Your task to perform on an android device: change the clock display to analog Image 0: 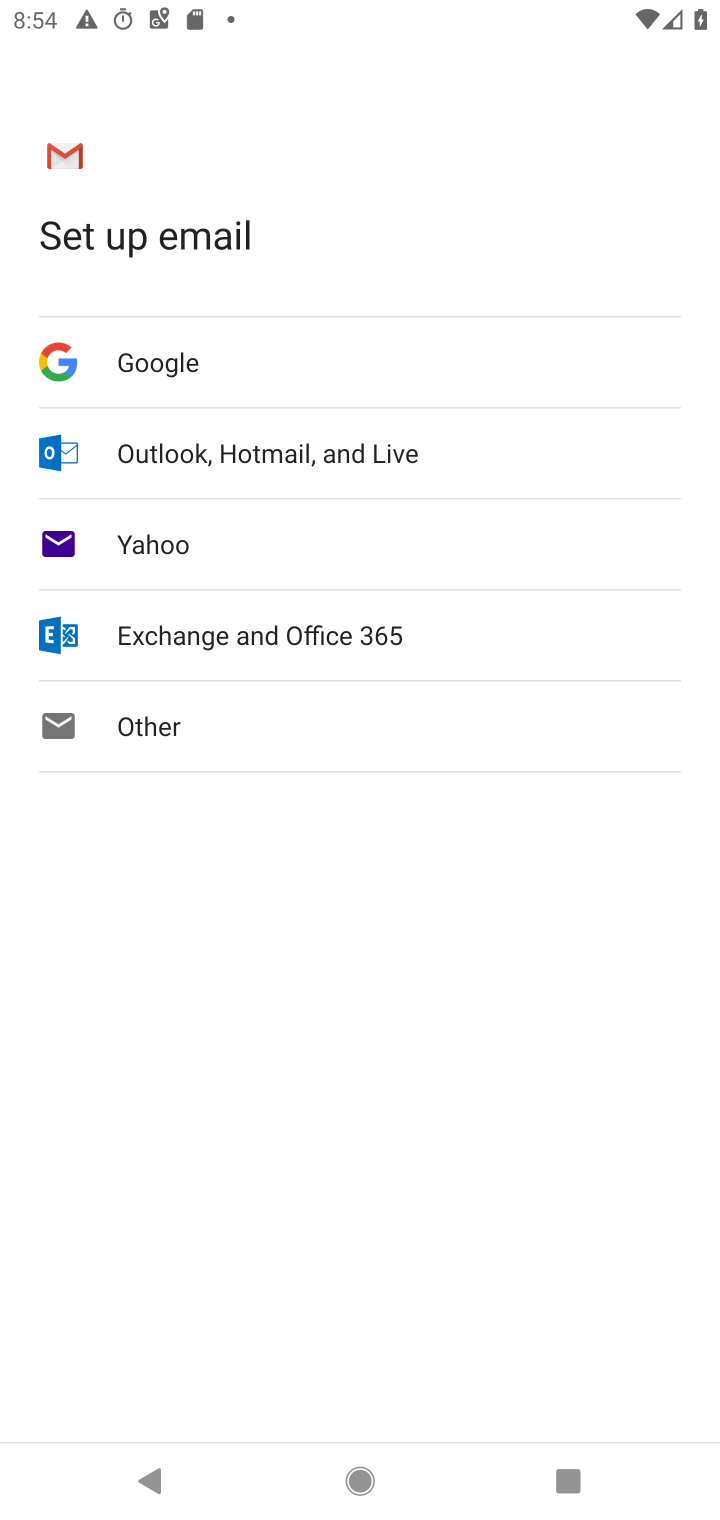
Step 0: press home button
Your task to perform on an android device: change the clock display to analog Image 1: 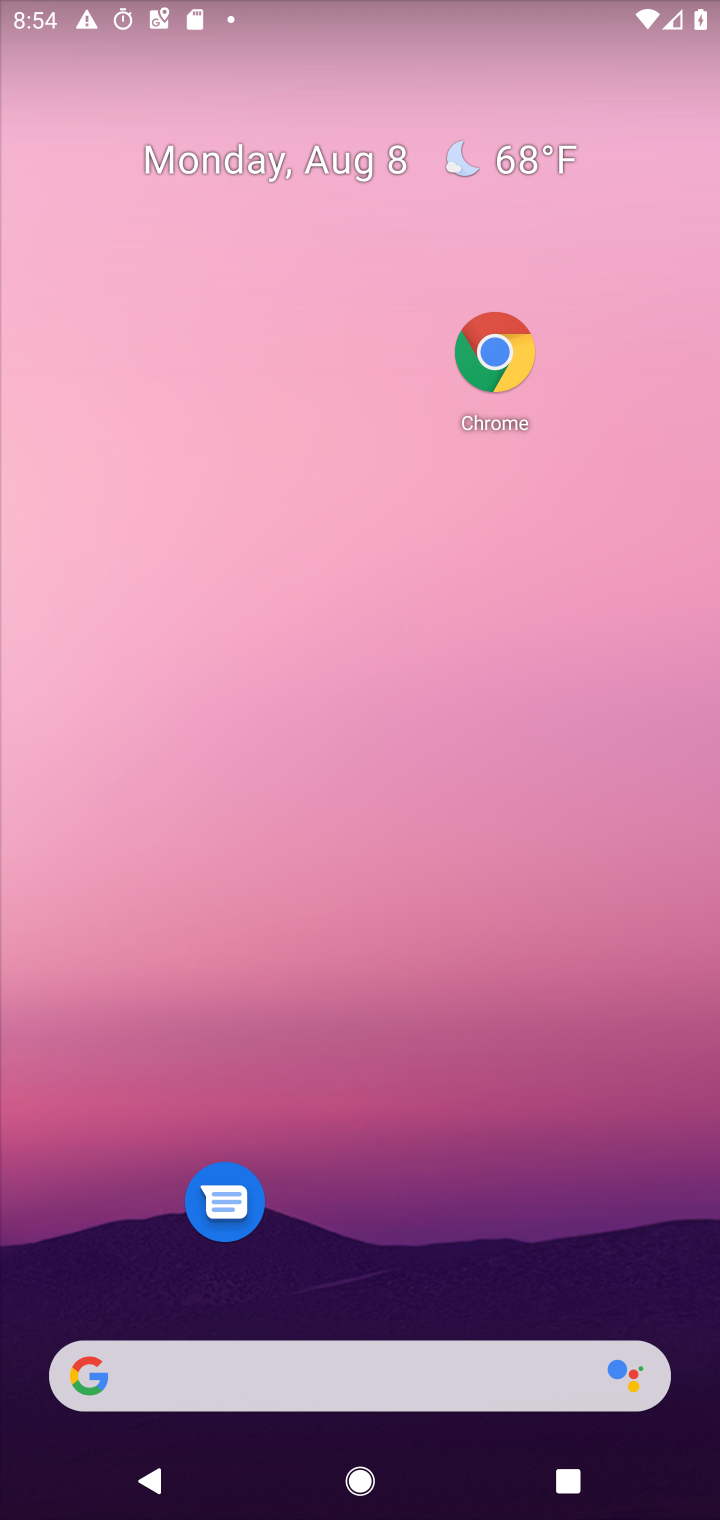
Step 1: drag from (415, 1204) to (499, 294)
Your task to perform on an android device: change the clock display to analog Image 2: 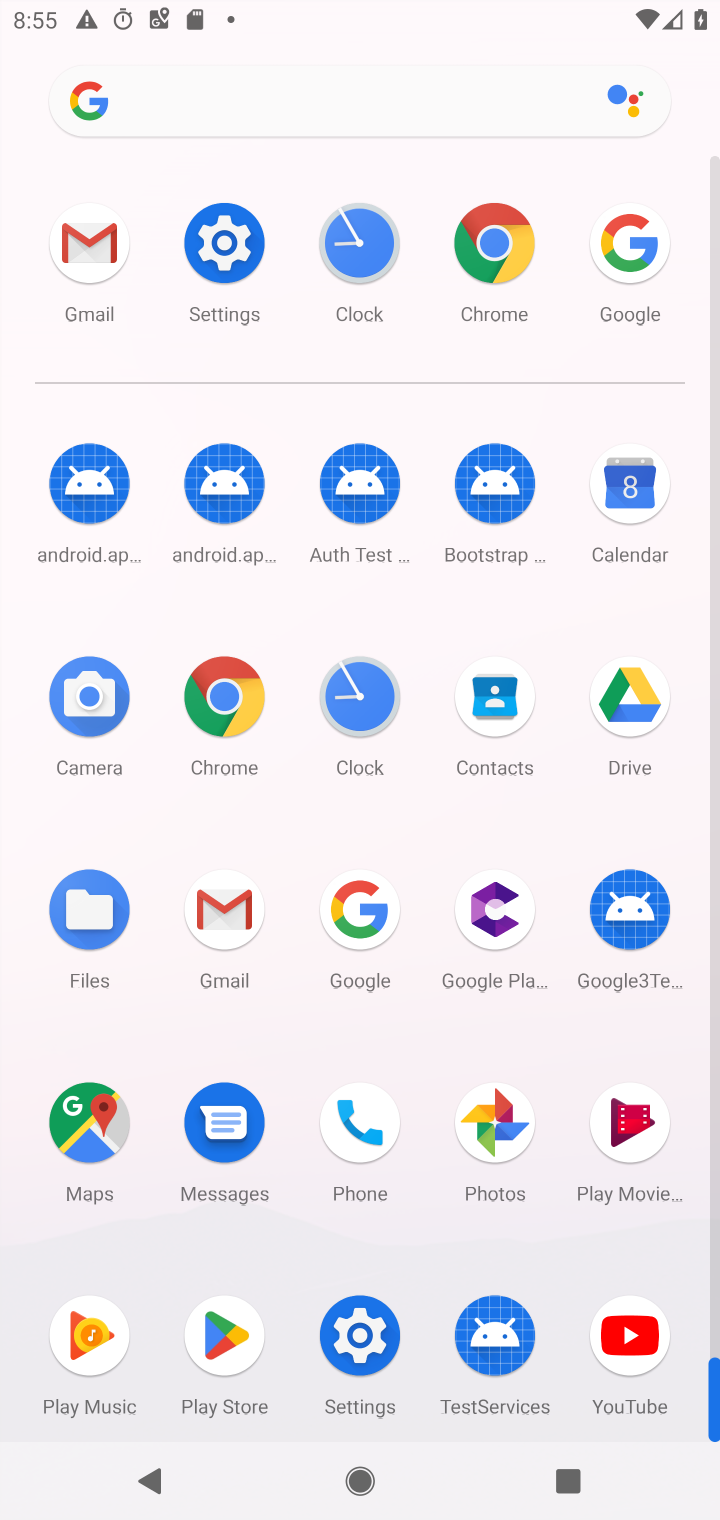
Step 2: click (351, 687)
Your task to perform on an android device: change the clock display to analog Image 3: 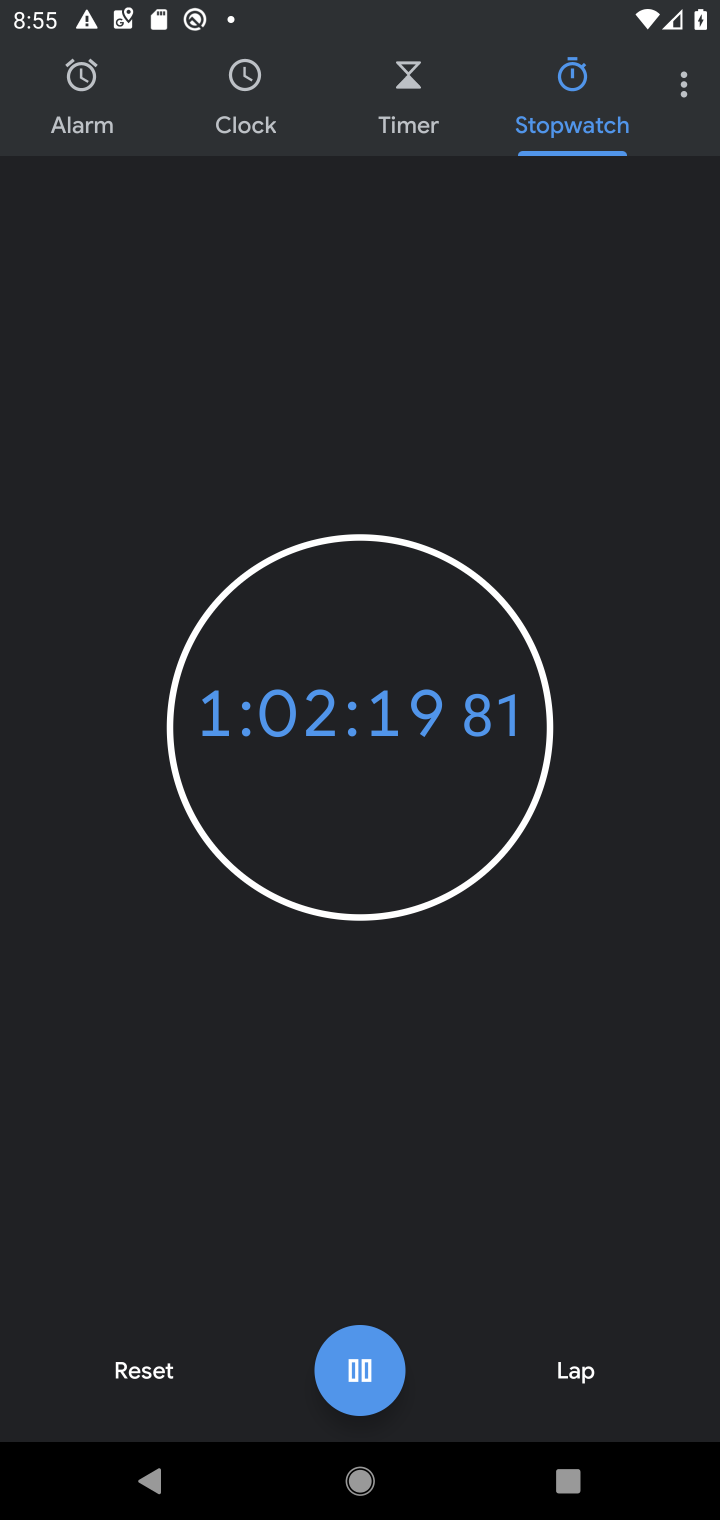
Step 3: click (682, 84)
Your task to perform on an android device: change the clock display to analog Image 4: 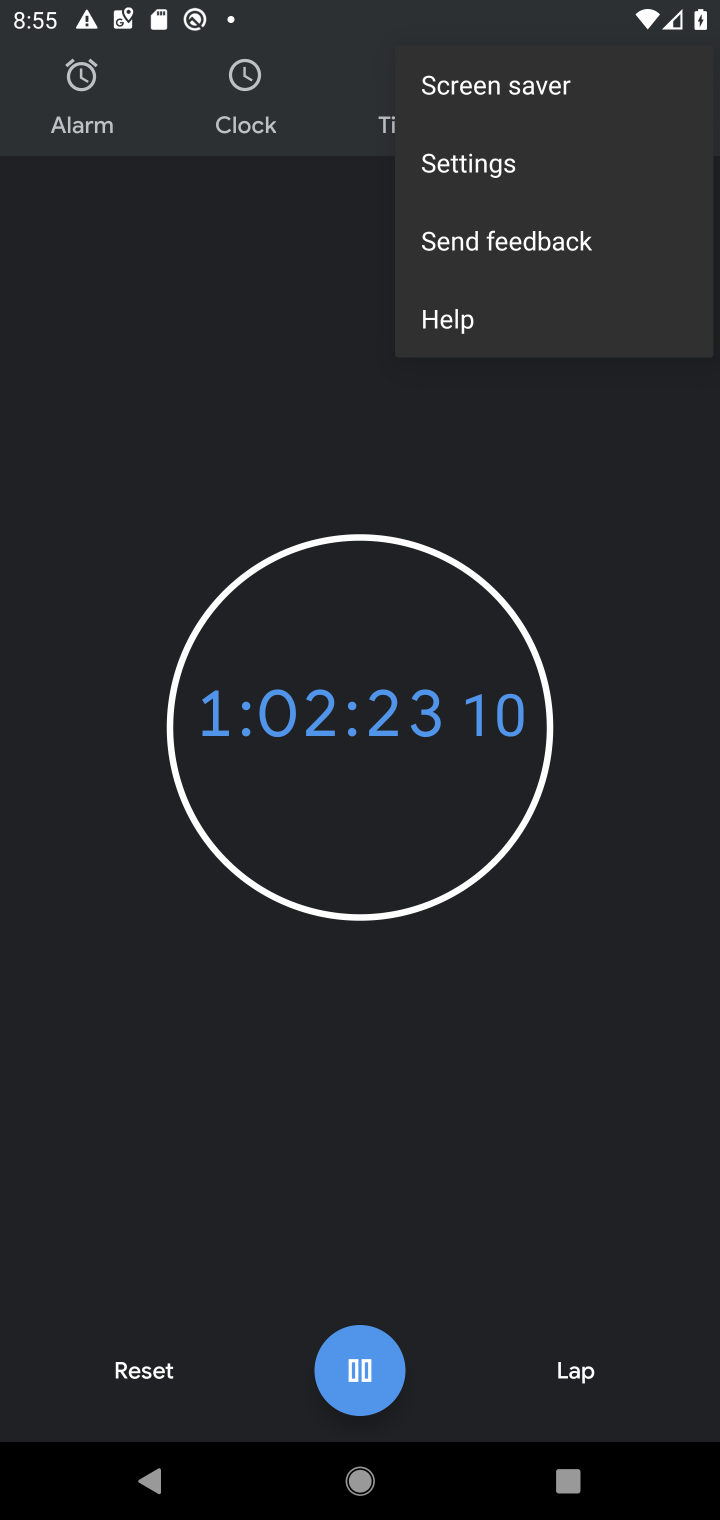
Step 4: click (484, 160)
Your task to perform on an android device: change the clock display to analog Image 5: 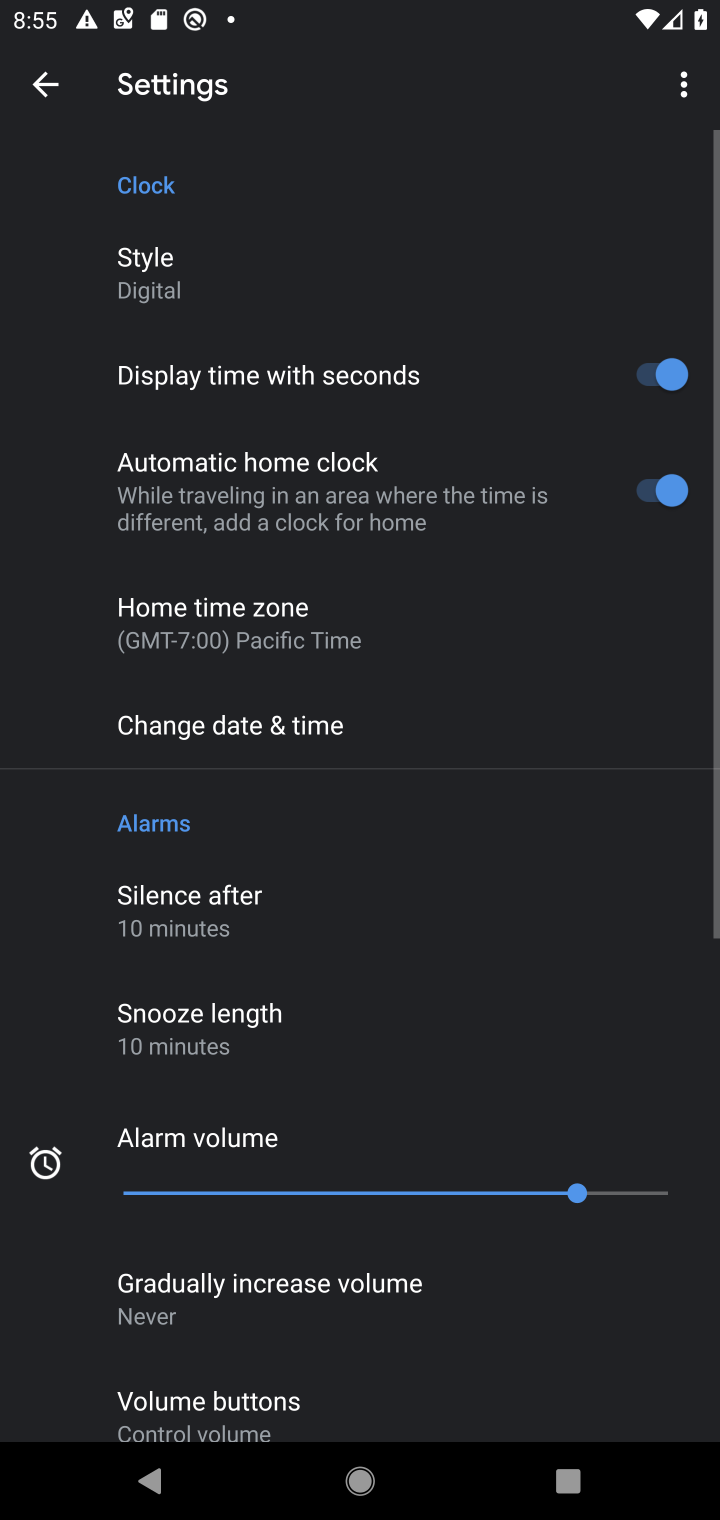
Step 5: click (211, 300)
Your task to perform on an android device: change the clock display to analog Image 6: 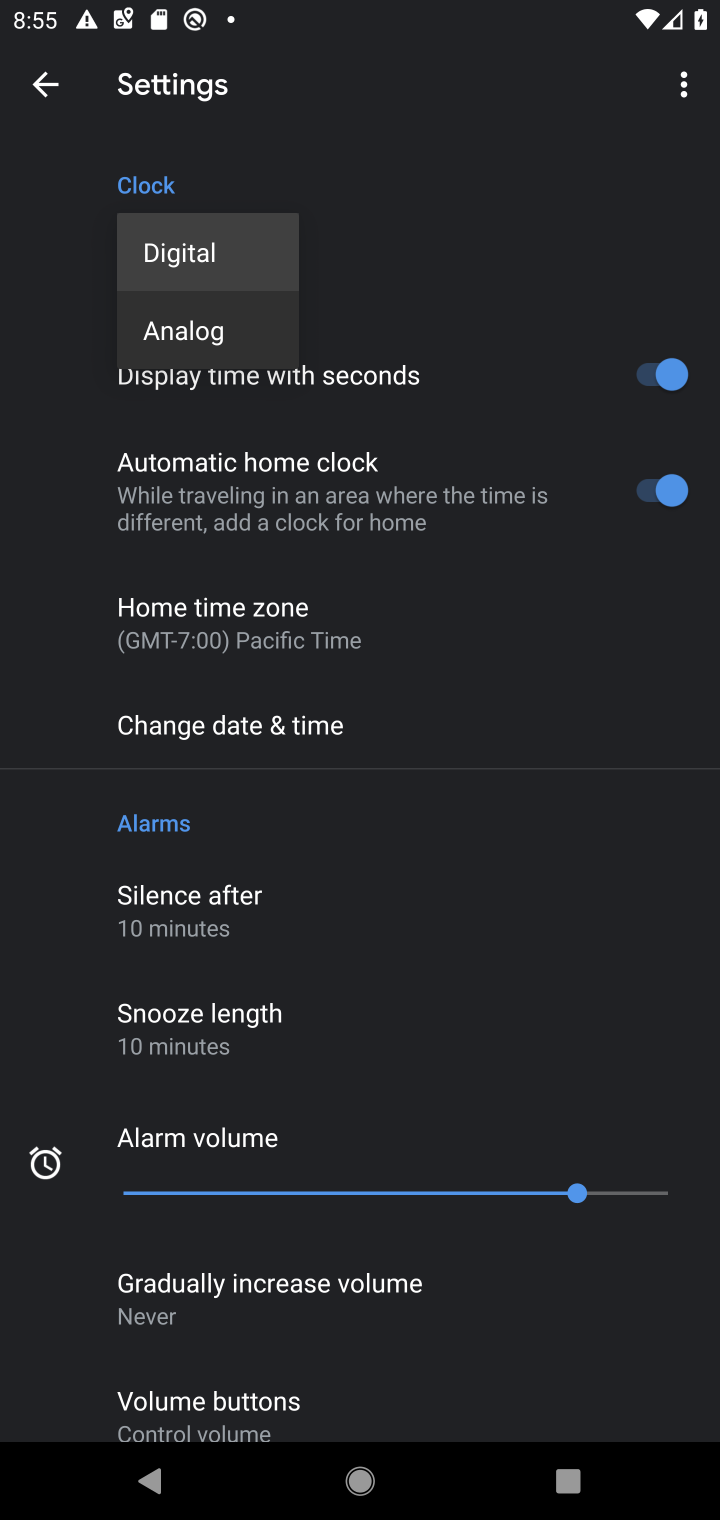
Step 6: click (202, 340)
Your task to perform on an android device: change the clock display to analog Image 7: 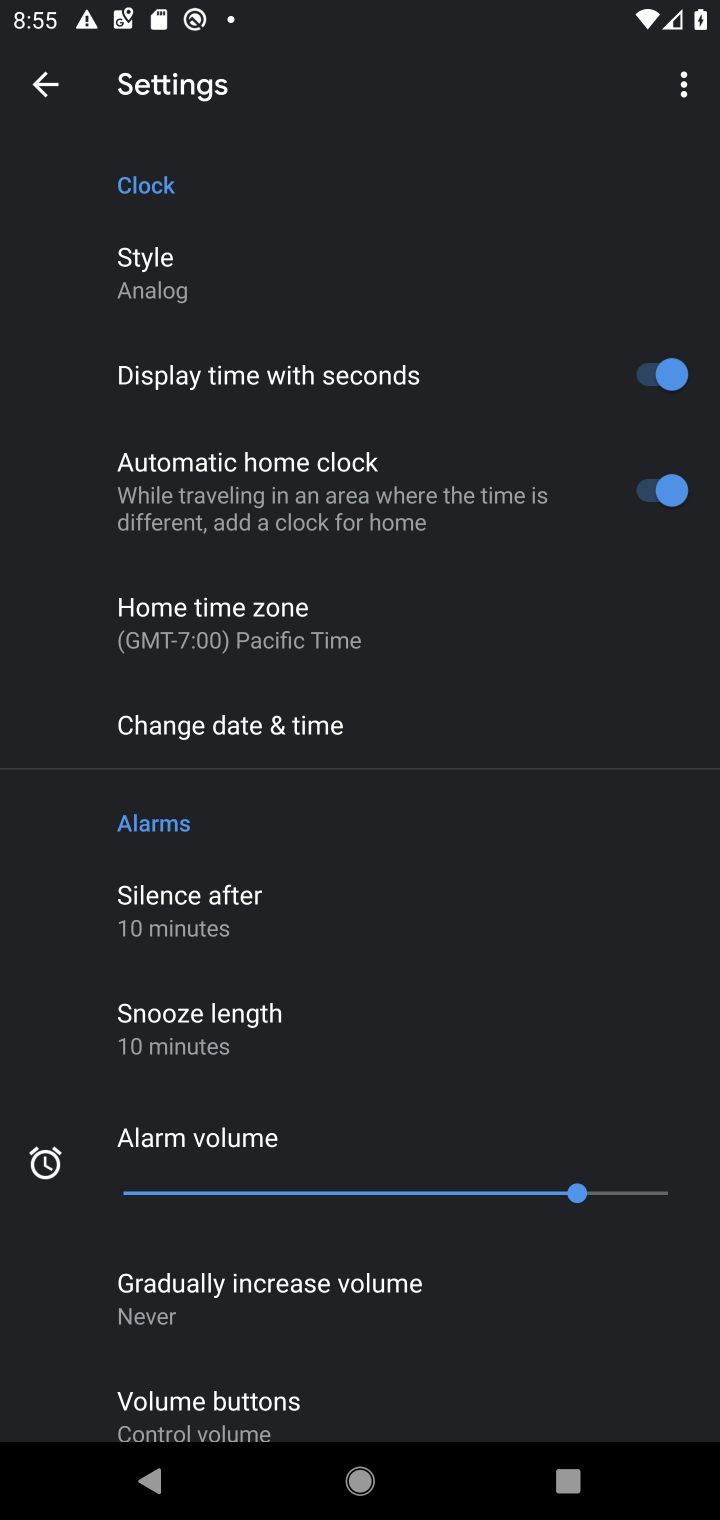
Step 7: task complete